Your task to perform on an android device: Open battery settings Image 0: 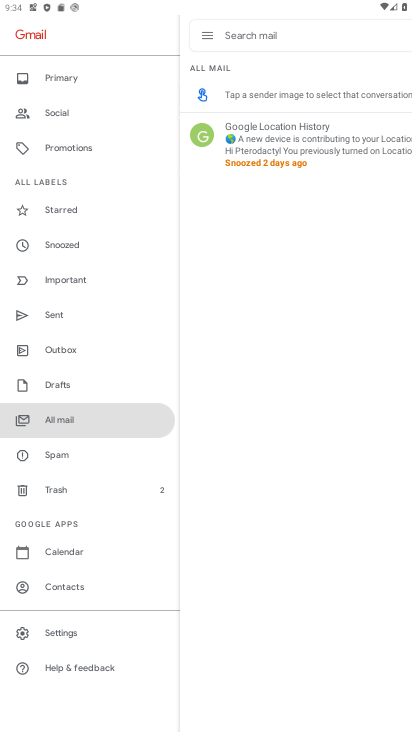
Step 0: drag from (233, 411) to (255, 574)
Your task to perform on an android device: Open battery settings Image 1: 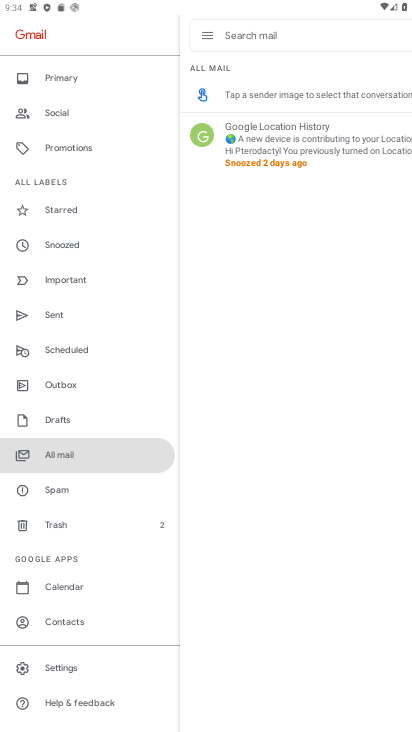
Step 1: drag from (156, 5) to (203, 572)
Your task to perform on an android device: Open battery settings Image 2: 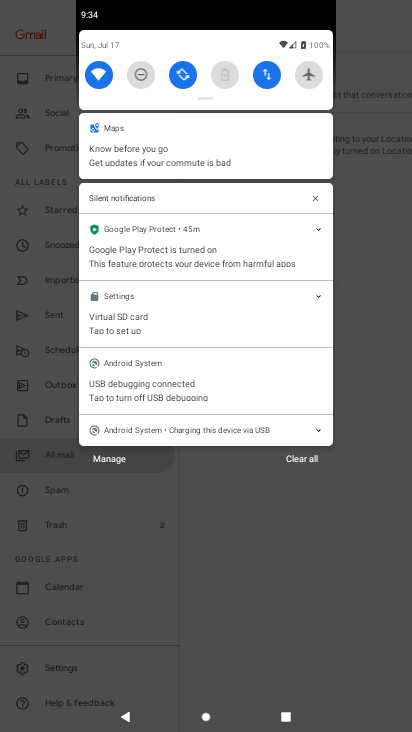
Step 2: click (224, 82)
Your task to perform on an android device: Open battery settings Image 3: 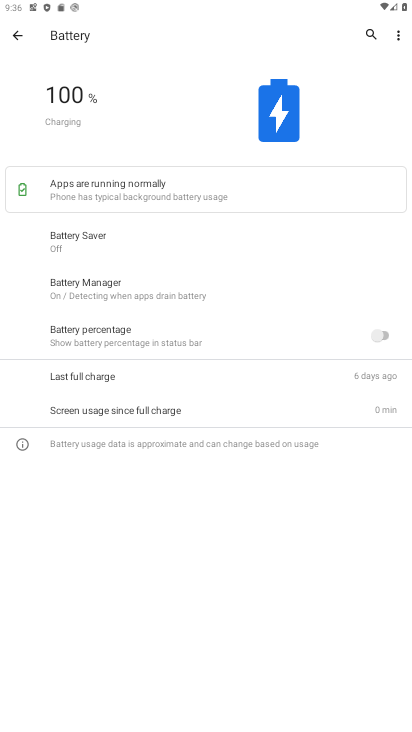
Step 3: task complete